Your task to perform on an android device: Go to Reddit.com Image 0: 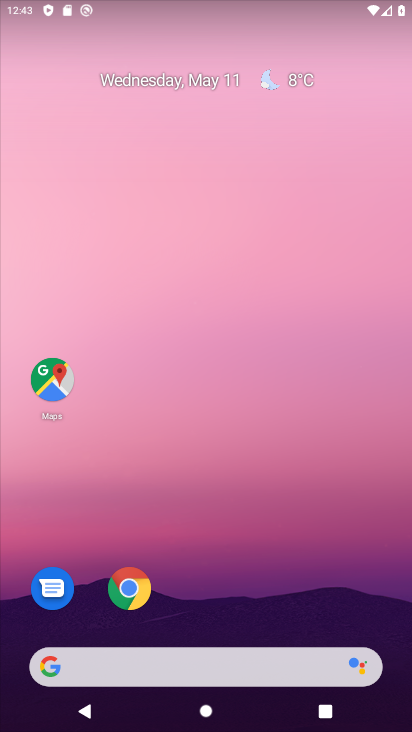
Step 0: click (128, 587)
Your task to perform on an android device: Go to Reddit.com Image 1: 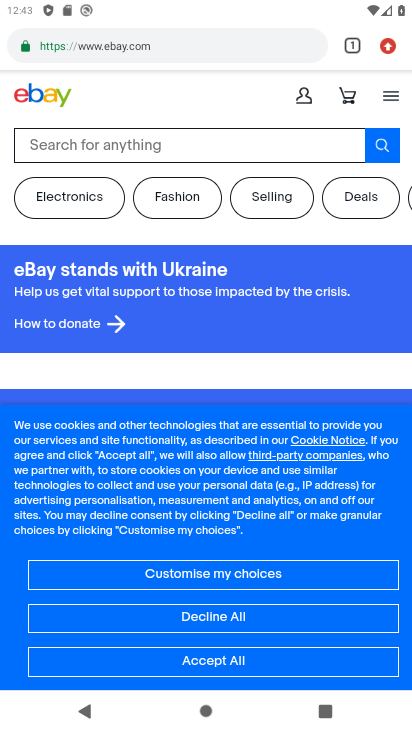
Step 1: click (87, 46)
Your task to perform on an android device: Go to Reddit.com Image 2: 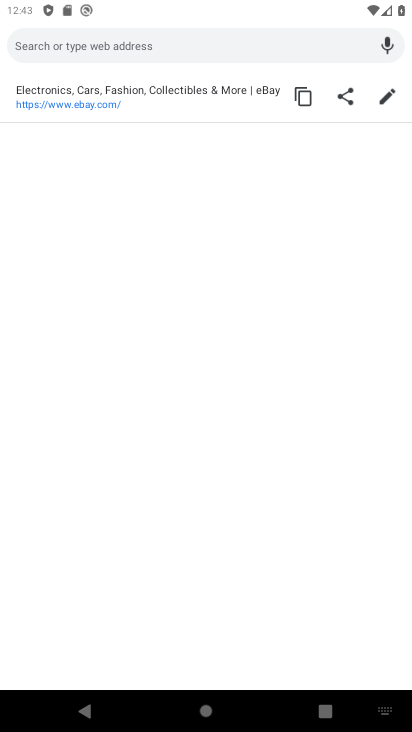
Step 2: type "reddit.com"
Your task to perform on an android device: Go to Reddit.com Image 3: 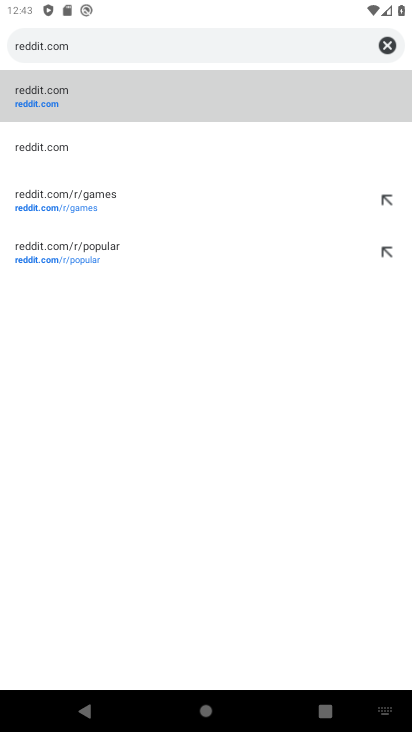
Step 3: click (94, 98)
Your task to perform on an android device: Go to Reddit.com Image 4: 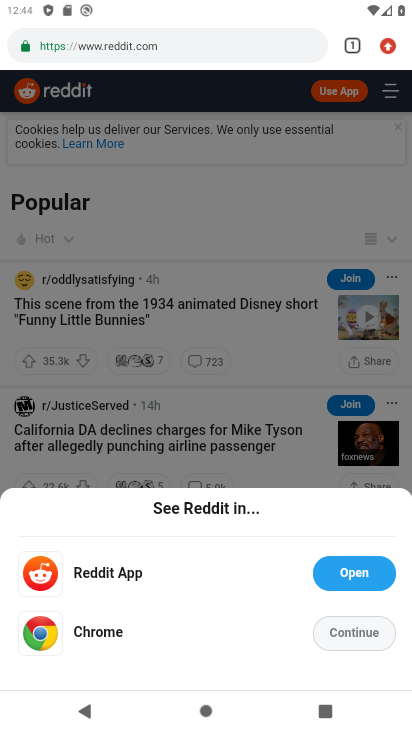
Step 4: task complete